Your task to perform on an android device: Open maps Image 0: 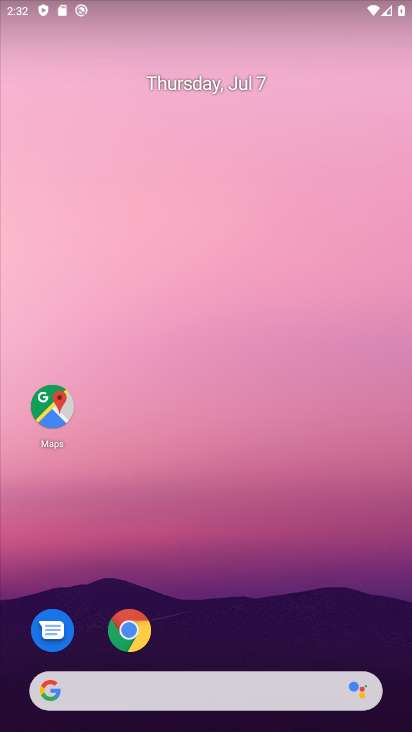
Step 0: drag from (195, 637) to (201, 264)
Your task to perform on an android device: Open maps Image 1: 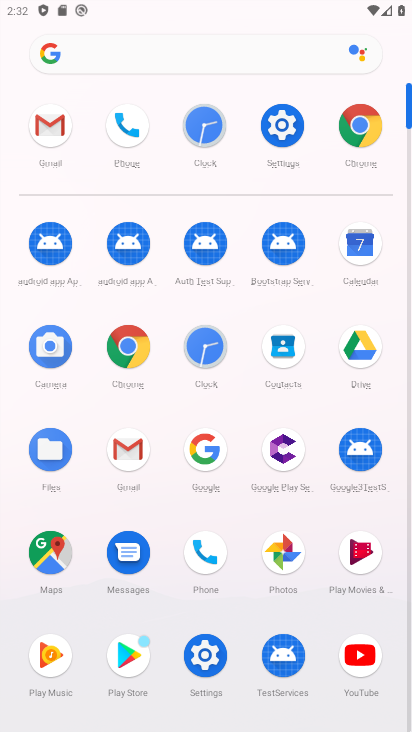
Step 1: click (56, 550)
Your task to perform on an android device: Open maps Image 2: 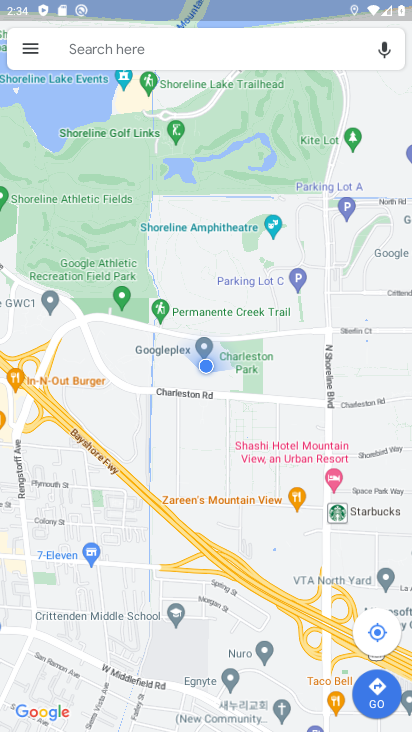
Step 2: press home button
Your task to perform on an android device: Open maps Image 3: 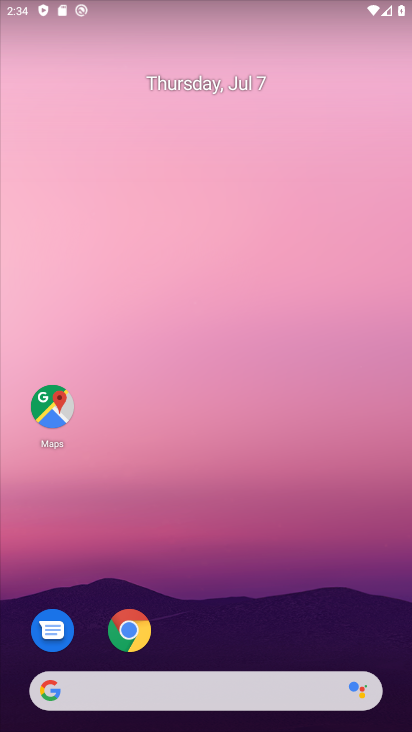
Step 3: drag from (270, 597) to (269, 263)
Your task to perform on an android device: Open maps Image 4: 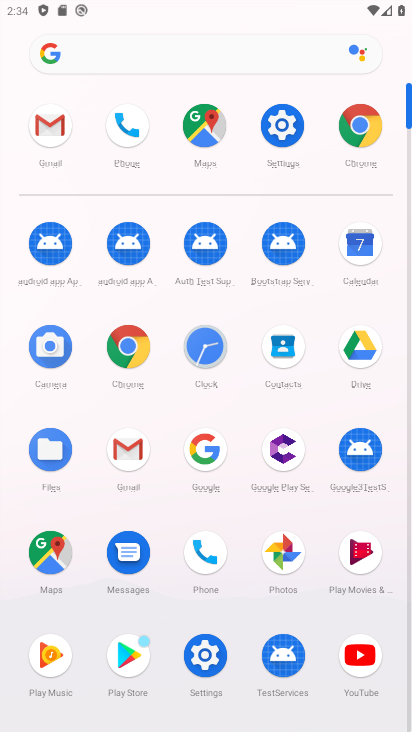
Step 4: click (39, 549)
Your task to perform on an android device: Open maps Image 5: 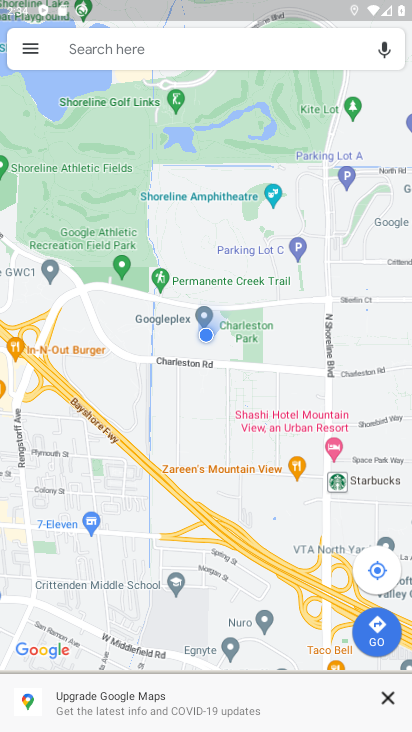
Step 5: task complete